Your task to perform on an android device: toggle show notifications on the lock screen Image 0: 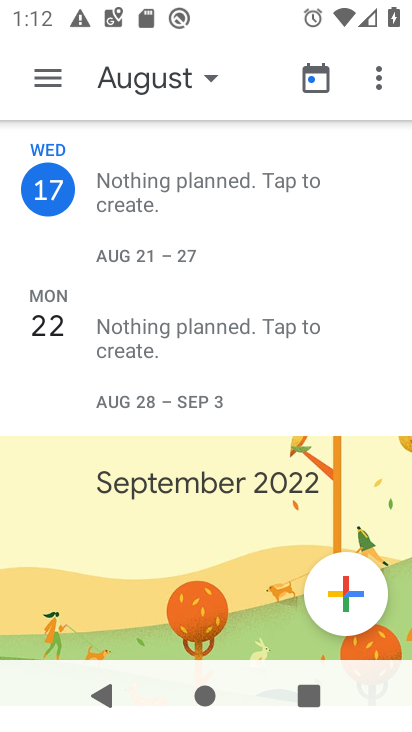
Step 0: press back button
Your task to perform on an android device: toggle show notifications on the lock screen Image 1: 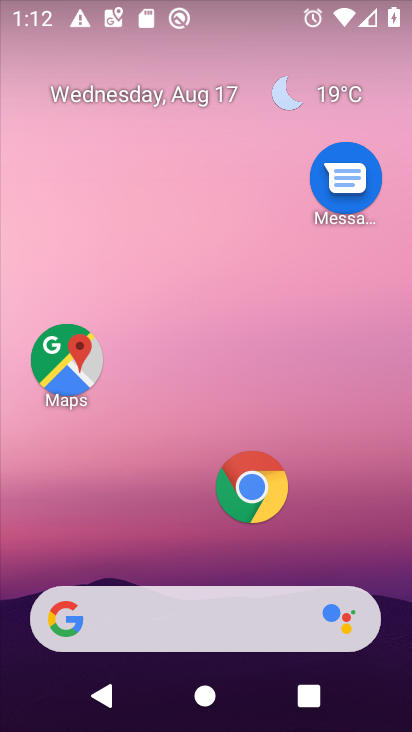
Step 1: drag from (93, 524) to (152, 0)
Your task to perform on an android device: toggle show notifications on the lock screen Image 2: 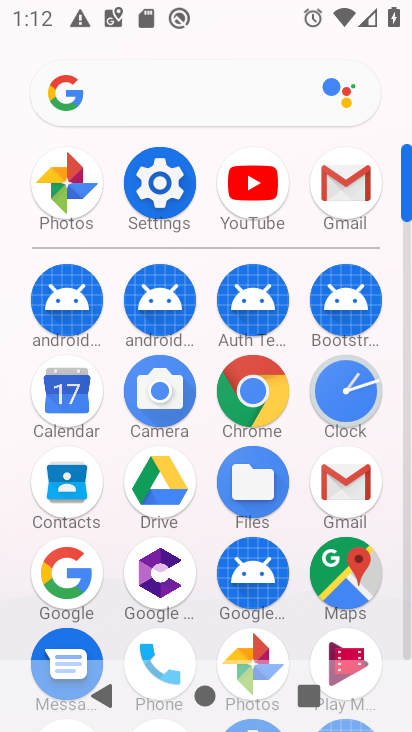
Step 2: click (172, 180)
Your task to perform on an android device: toggle show notifications on the lock screen Image 3: 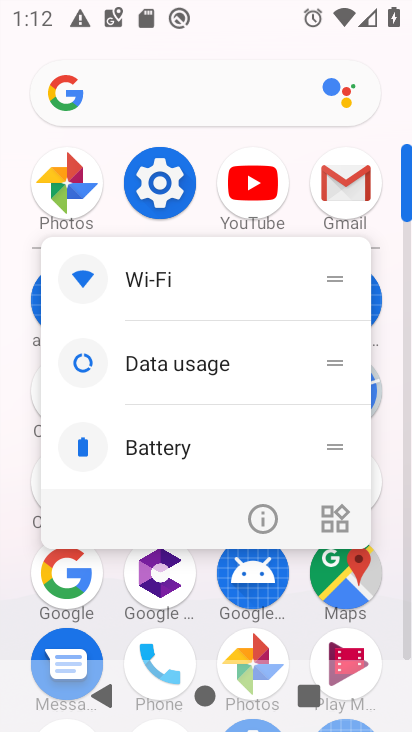
Step 3: click (166, 179)
Your task to perform on an android device: toggle show notifications on the lock screen Image 4: 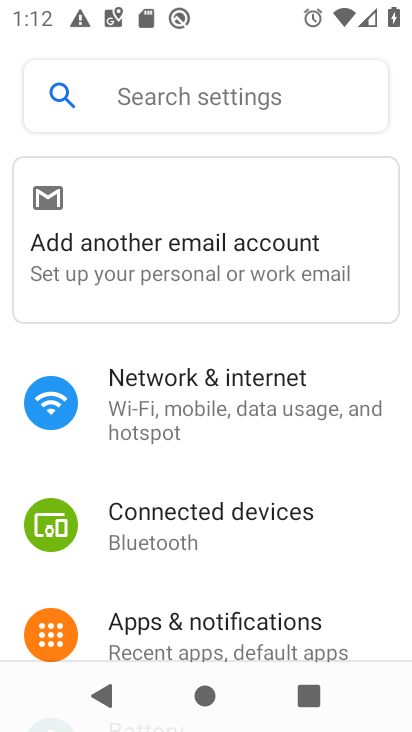
Step 4: click (254, 635)
Your task to perform on an android device: toggle show notifications on the lock screen Image 5: 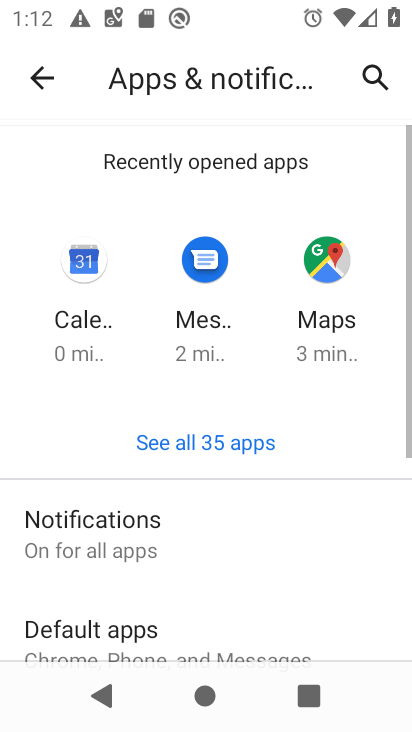
Step 5: click (114, 514)
Your task to perform on an android device: toggle show notifications on the lock screen Image 6: 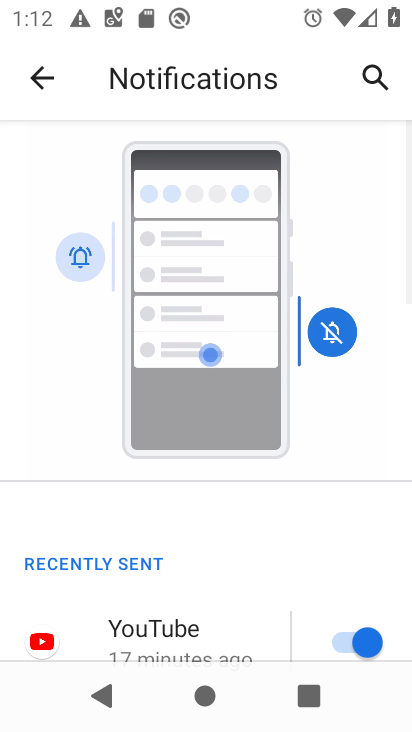
Step 6: drag from (177, 615) to (251, 129)
Your task to perform on an android device: toggle show notifications on the lock screen Image 7: 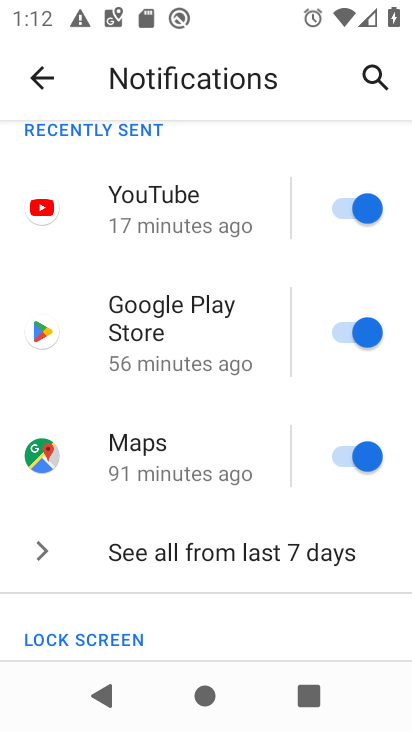
Step 7: drag from (141, 591) to (195, 168)
Your task to perform on an android device: toggle show notifications on the lock screen Image 8: 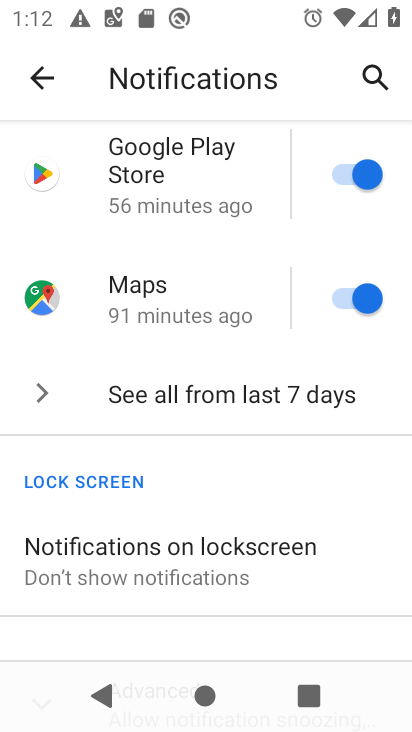
Step 8: click (229, 540)
Your task to perform on an android device: toggle show notifications on the lock screen Image 9: 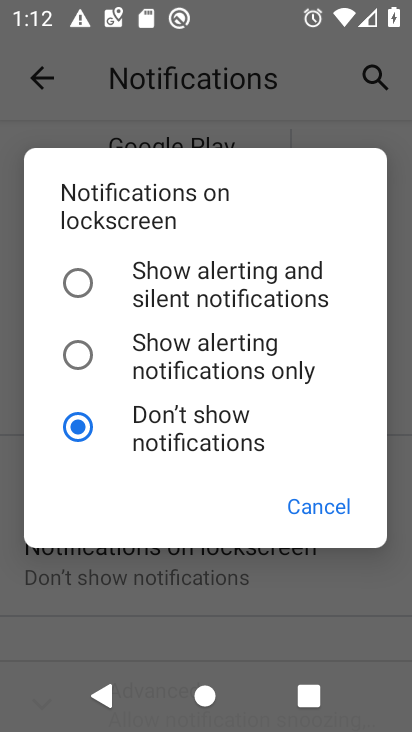
Step 9: click (90, 285)
Your task to perform on an android device: toggle show notifications on the lock screen Image 10: 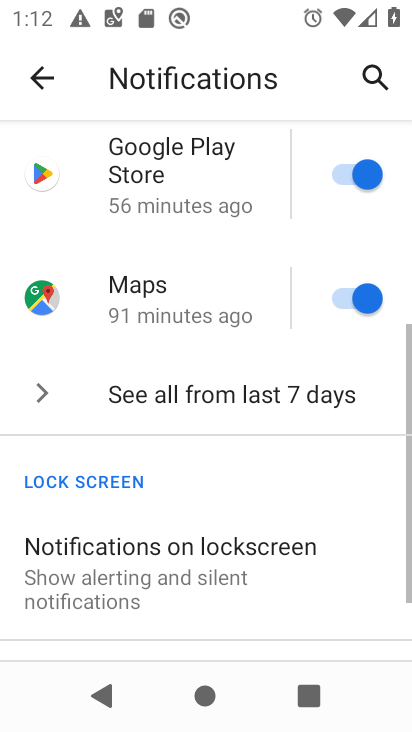
Step 10: task complete